Your task to perform on an android device: uninstall "Adobe Acrobat Reader" Image 0: 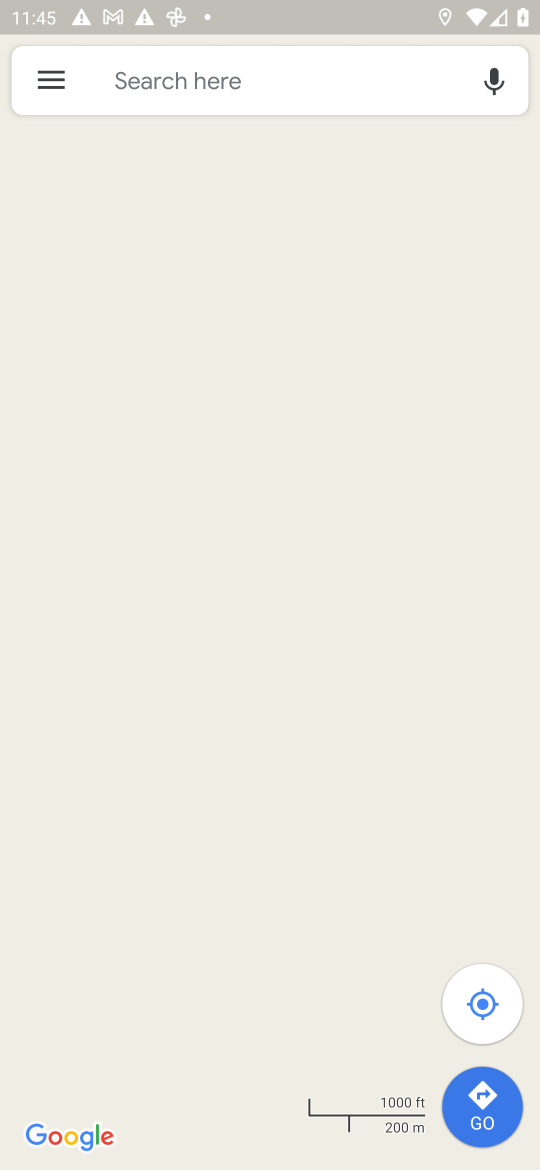
Step 0: press home button
Your task to perform on an android device: uninstall "Adobe Acrobat Reader" Image 1: 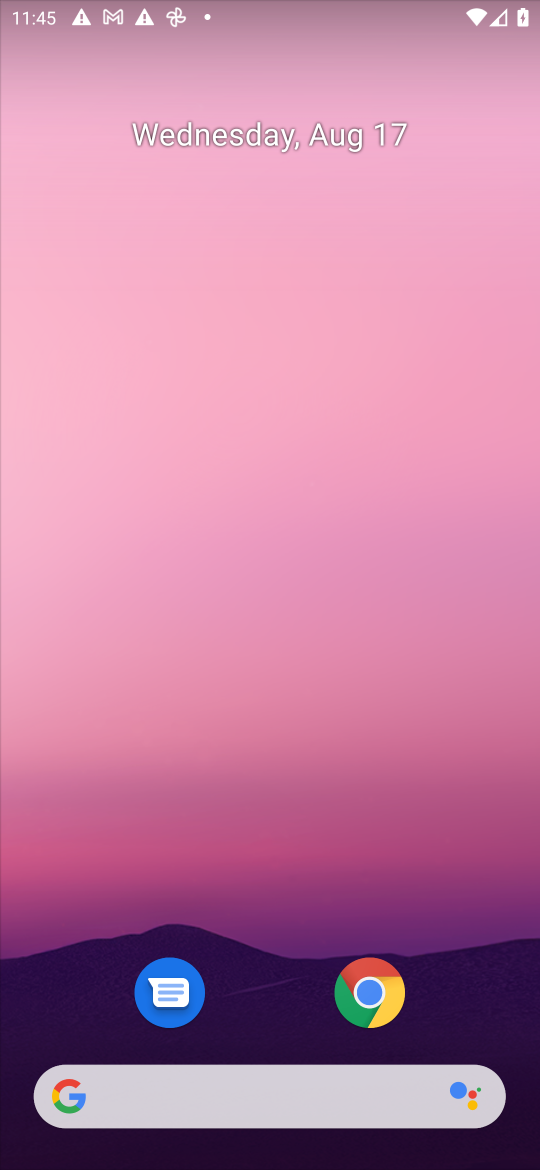
Step 1: drag from (476, 948) to (168, 144)
Your task to perform on an android device: uninstall "Adobe Acrobat Reader" Image 2: 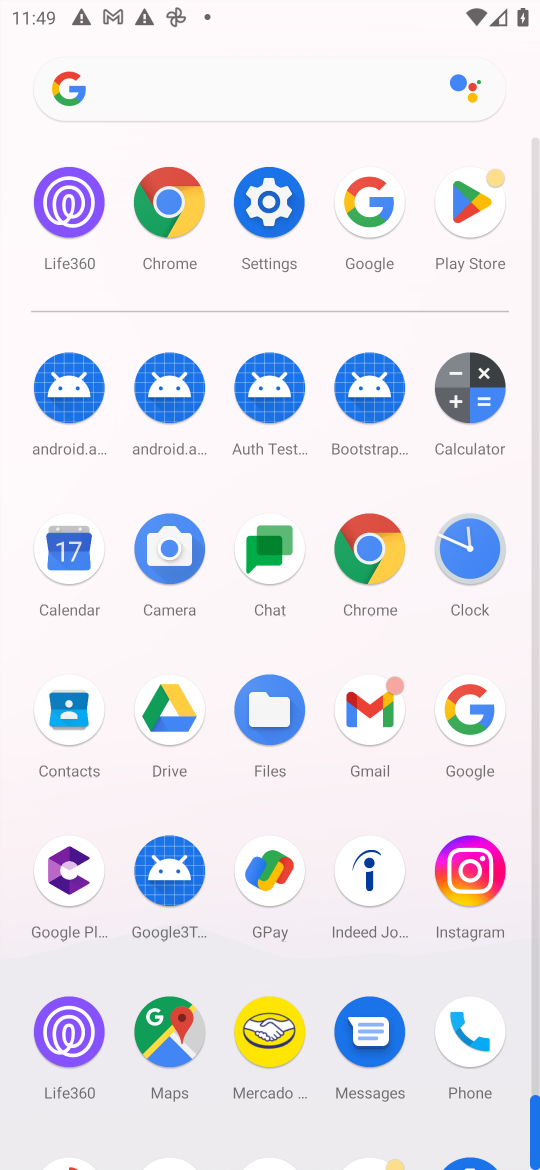
Step 2: click (467, 223)
Your task to perform on an android device: uninstall "Adobe Acrobat Reader" Image 3: 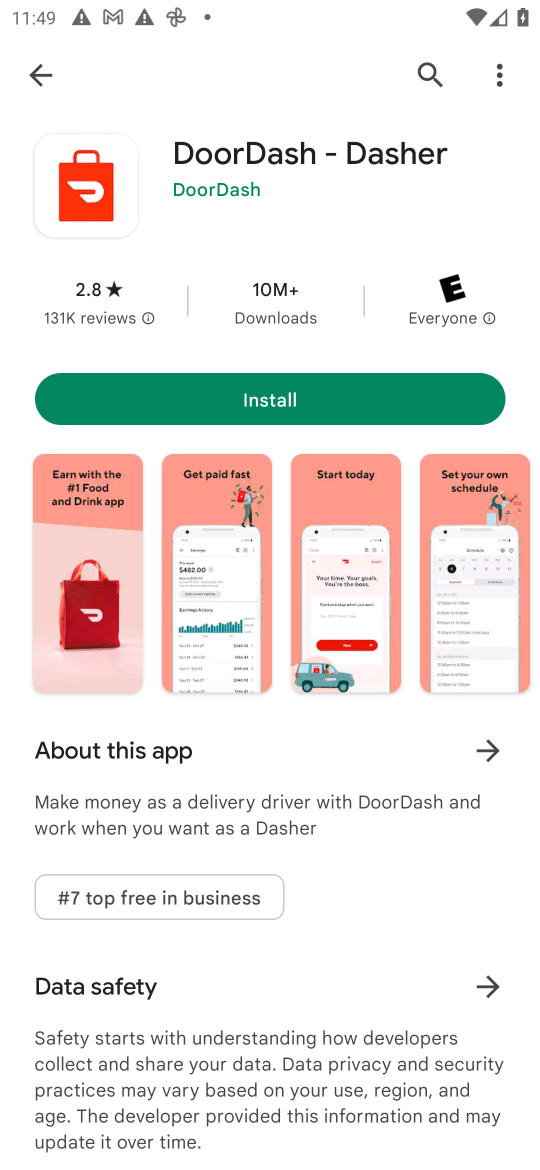
Step 3: press back button
Your task to perform on an android device: uninstall "Adobe Acrobat Reader" Image 4: 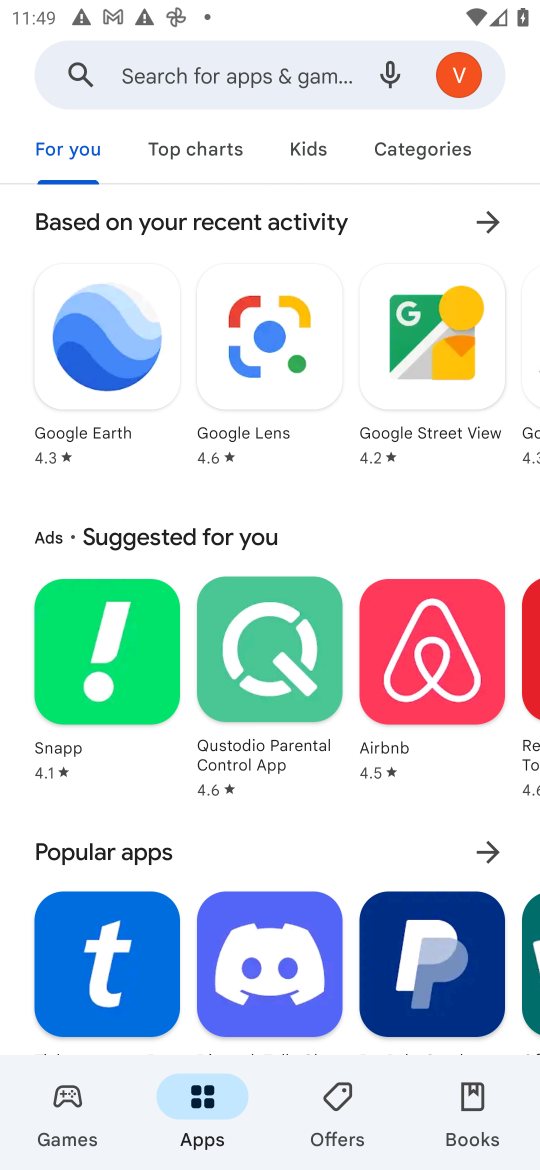
Step 4: click (268, 88)
Your task to perform on an android device: uninstall "Adobe Acrobat Reader" Image 5: 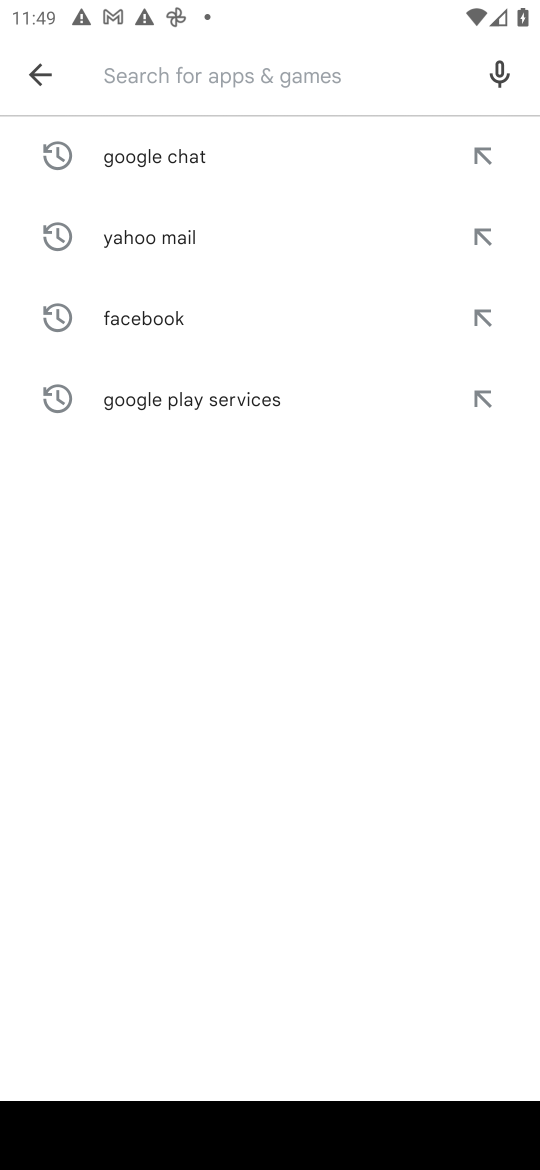
Step 5: type "Adobe Acrobat Reader"
Your task to perform on an android device: uninstall "Adobe Acrobat Reader" Image 6: 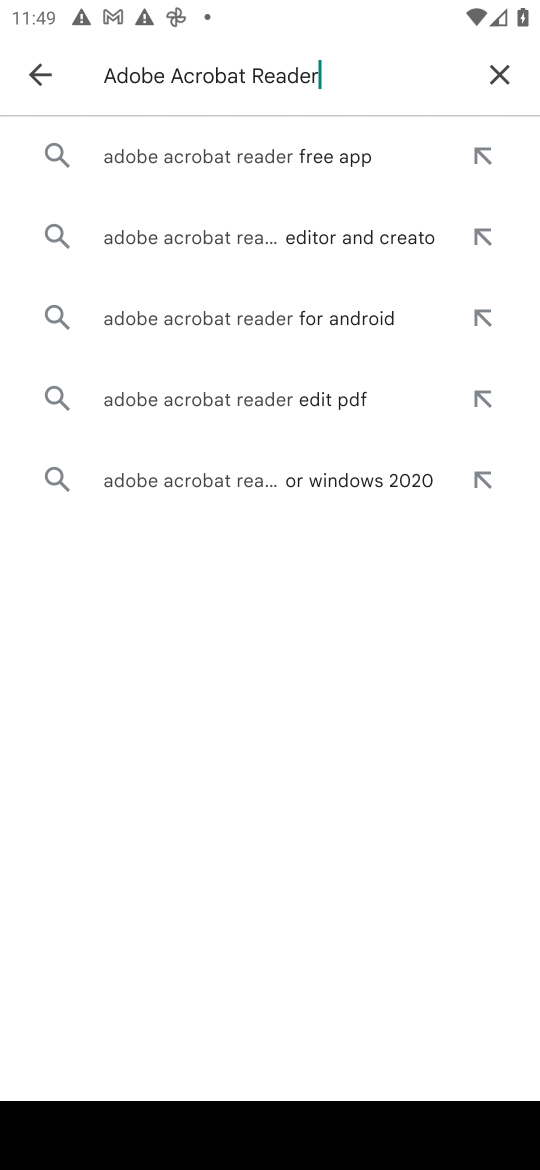
Step 6: task complete